Your task to perform on an android device: Go to Amazon Image 0: 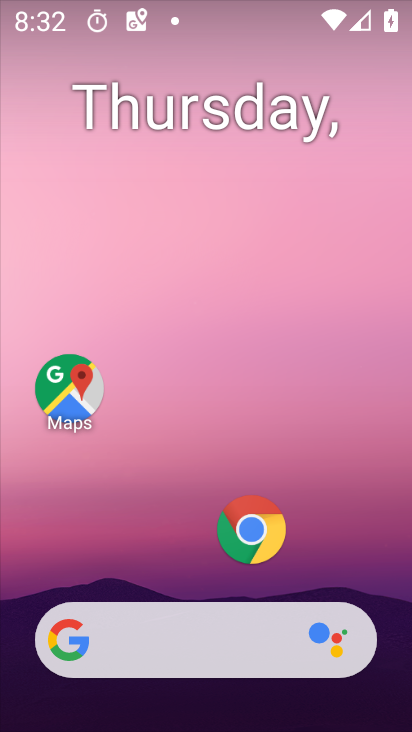
Step 0: press home button
Your task to perform on an android device: Go to Amazon Image 1: 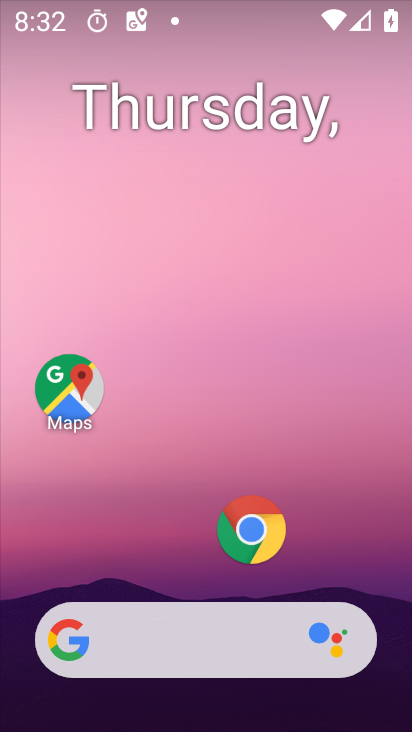
Step 1: click (240, 521)
Your task to perform on an android device: Go to Amazon Image 2: 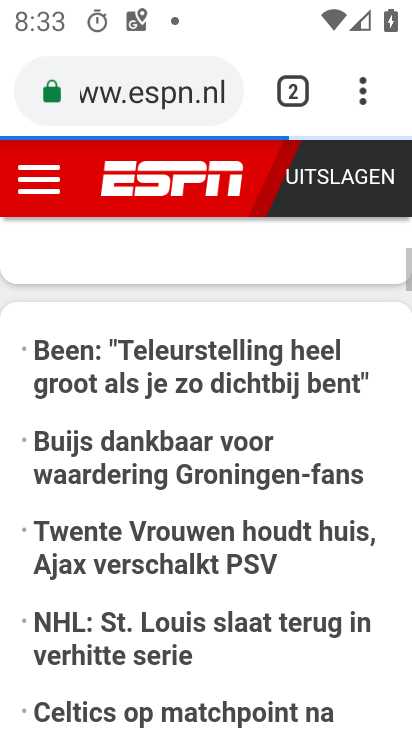
Step 2: click (295, 88)
Your task to perform on an android device: Go to Amazon Image 3: 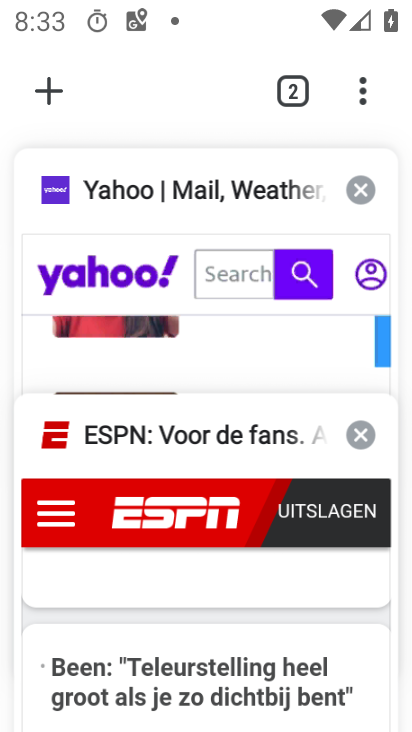
Step 3: click (358, 181)
Your task to perform on an android device: Go to Amazon Image 4: 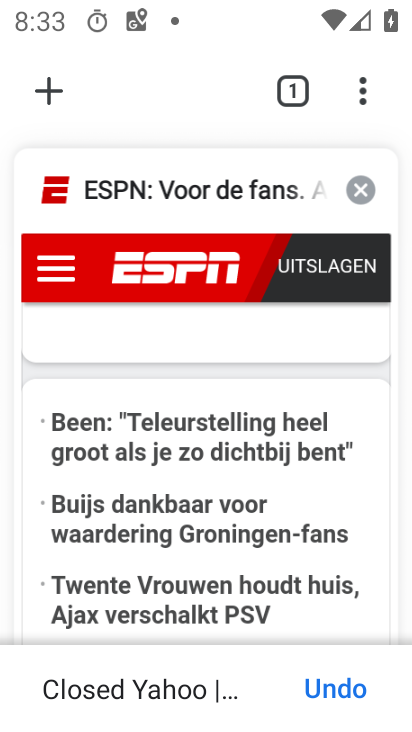
Step 4: click (358, 185)
Your task to perform on an android device: Go to Amazon Image 5: 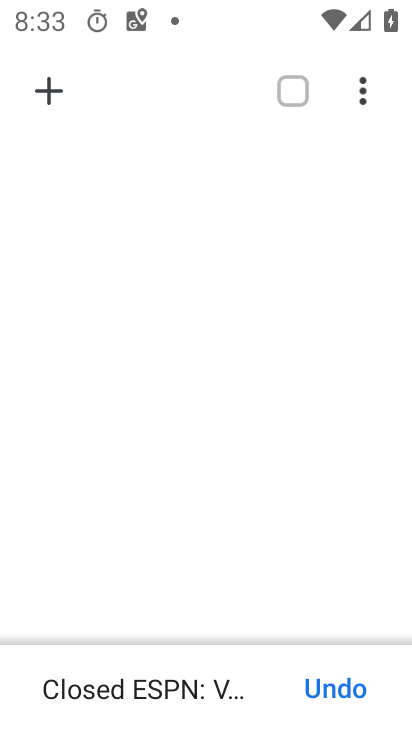
Step 5: click (54, 94)
Your task to perform on an android device: Go to Amazon Image 6: 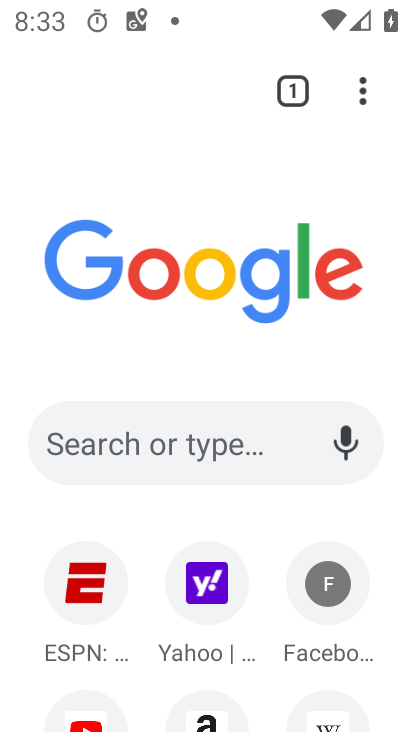
Step 6: click (207, 709)
Your task to perform on an android device: Go to Amazon Image 7: 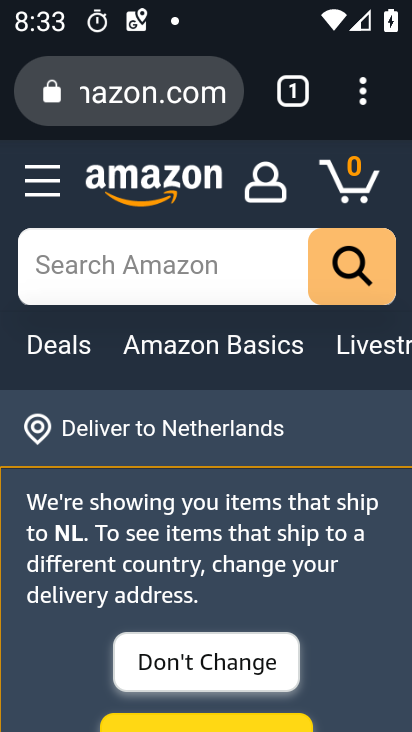
Step 7: task complete